Your task to perform on an android device: make emails show in primary in the gmail app Image 0: 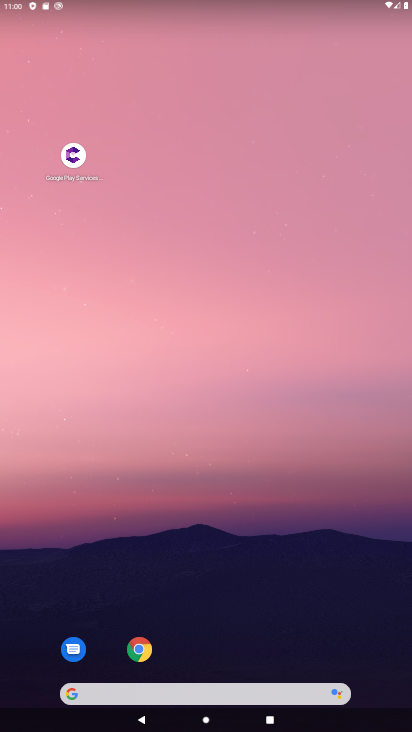
Step 0: drag from (208, 645) to (357, 14)
Your task to perform on an android device: make emails show in primary in the gmail app Image 1: 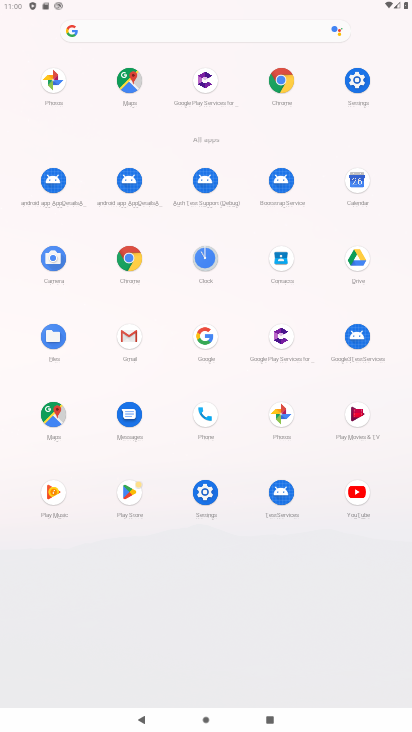
Step 1: click (133, 346)
Your task to perform on an android device: make emails show in primary in the gmail app Image 2: 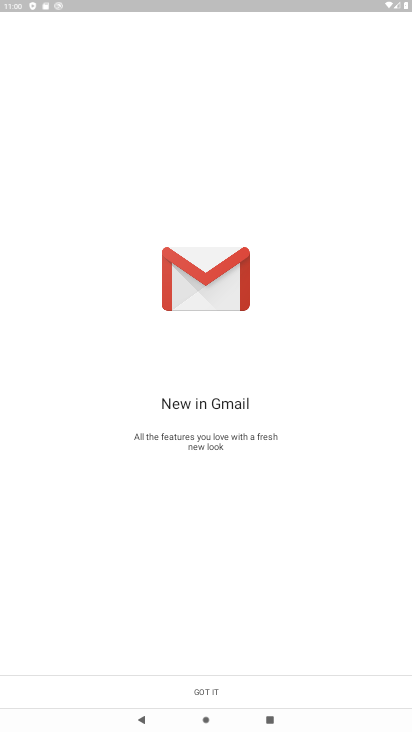
Step 2: click (217, 692)
Your task to perform on an android device: make emails show in primary in the gmail app Image 3: 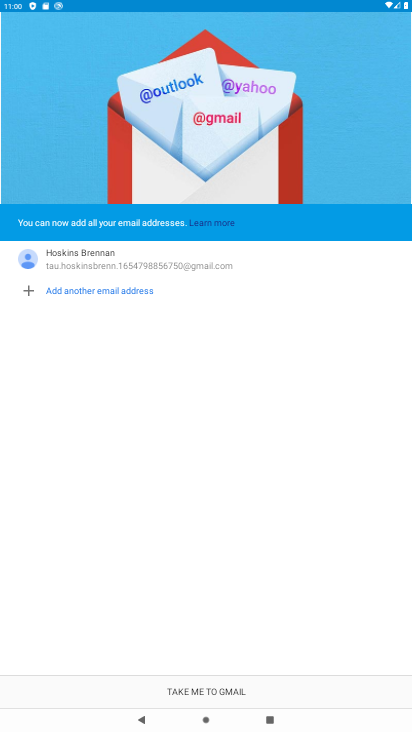
Step 3: click (215, 687)
Your task to perform on an android device: make emails show in primary in the gmail app Image 4: 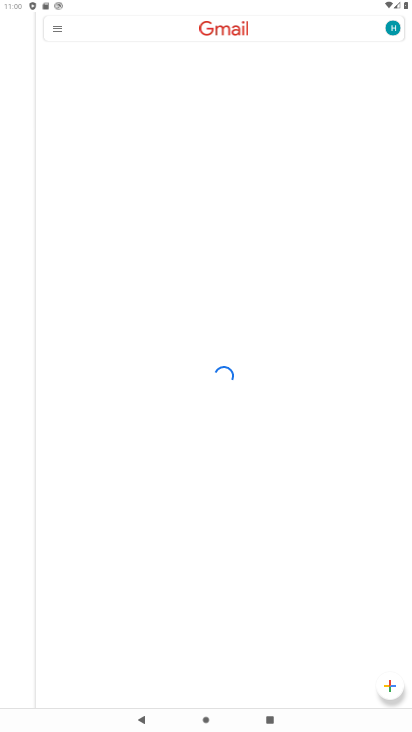
Step 4: click (57, 26)
Your task to perform on an android device: make emails show in primary in the gmail app Image 5: 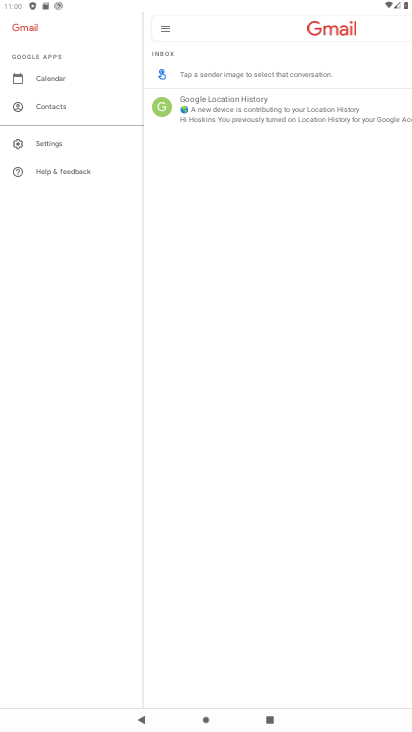
Step 5: click (49, 30)
Your task to perform on an android device: make emails show in primary in the gmail app Image 6: 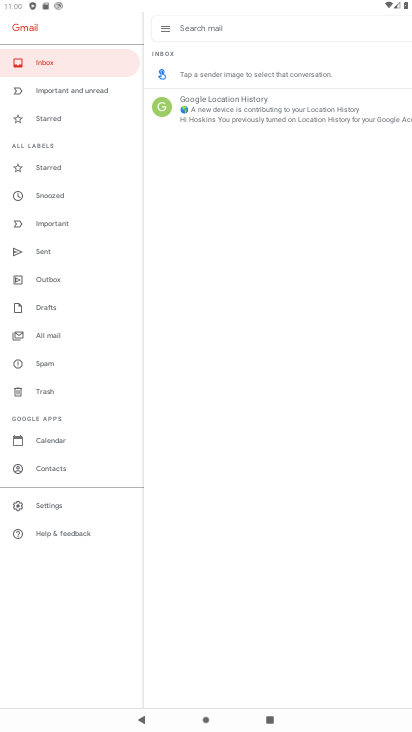
Step 6: click (61, 504)
Your task to perform on an android device: make emails show in primary in the gmail app Image 7: 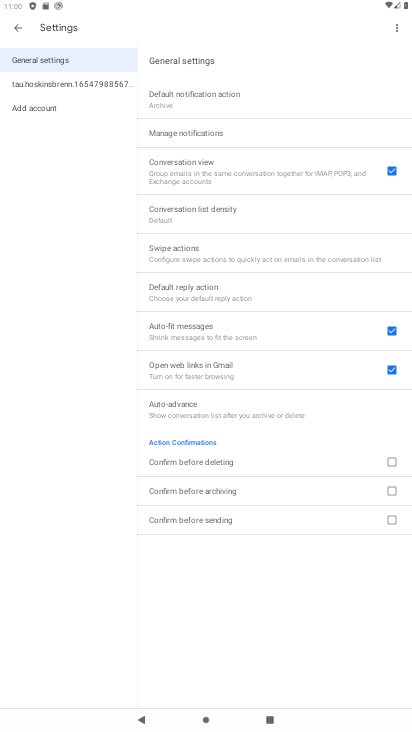
Step 7: click (107, 84)
Your task to perform on an android device: make emails show in primary in the gmail app Image 8: 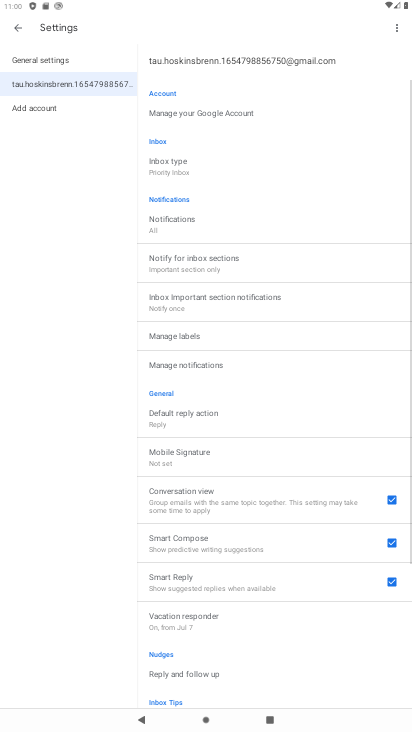
Step 8: click (187, 171)
Your task to perform on an android device: make emails show in primary in the gmail app Image 9: 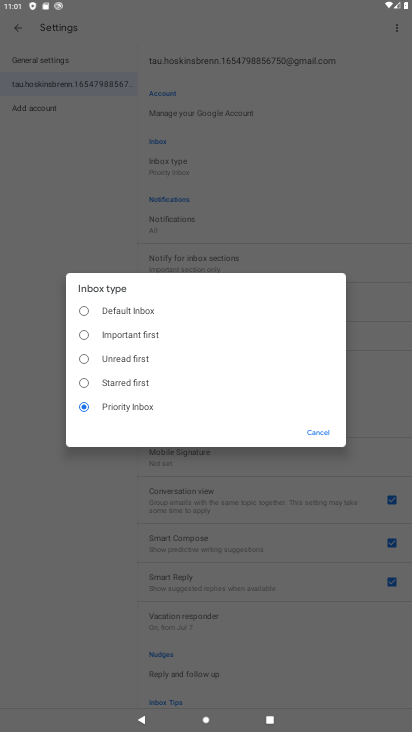
Step 9: click (120, 306)
Your task to perform on an android device: make emails show in primary in the gmail app Image 10: 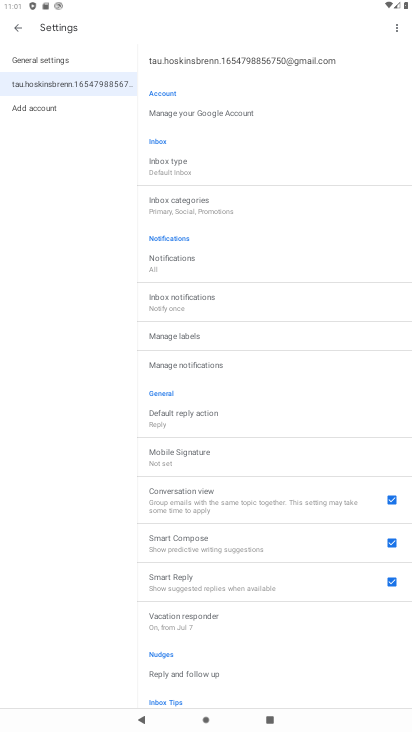
Step 10: click (204, 199)
Your task to perform on an android device: make emails show in primary in the gmail app Image 11: 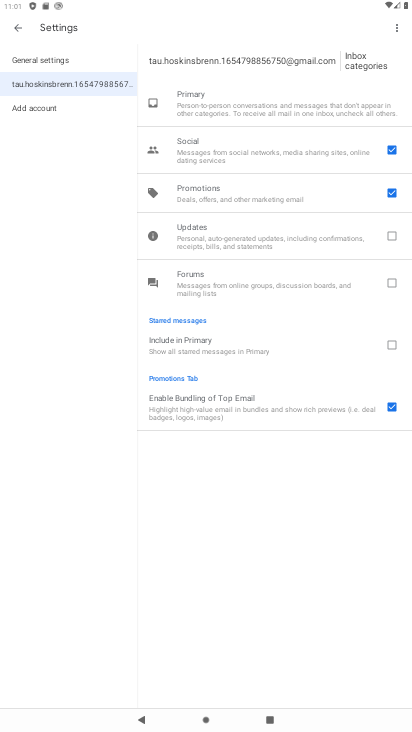
Step 11: click (379, 197)
Your task to perform on an android device: make emails show in primary in the gmail app Image 12: 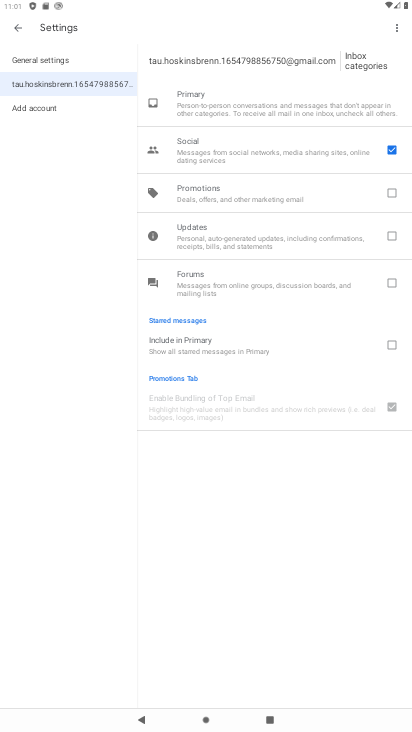
Step 12: click (388, 149)
Your task to perform on an android device: make emails show in primary in the gmail app Image 13: 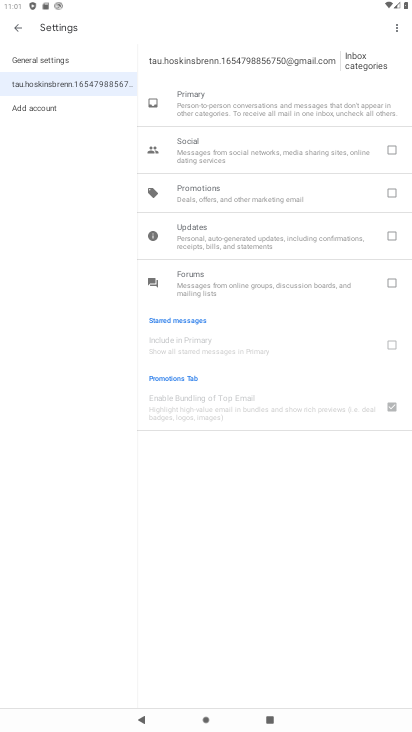
Step 13: task complete